Your task to perform on an android device: toggle priority inbox in the gmail app Image 0: 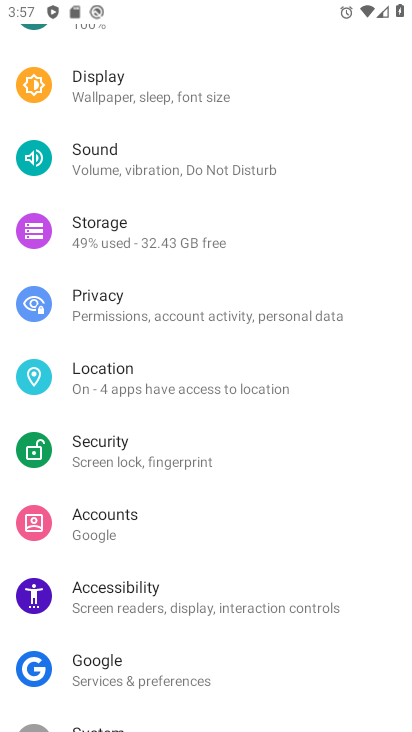
Step 0: press home button
Your task to perform on an android device: toggle priority inbox in the gmail app Image 1: 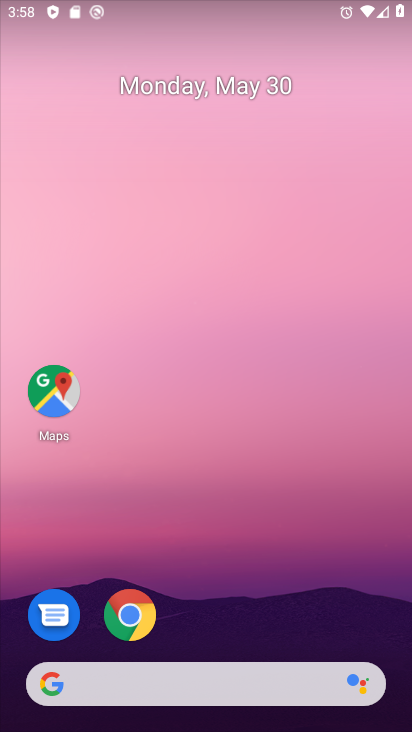
Step 1: drag from (267, 565) to (271, 34)
Your task to perform on an android device: toggle priority inbox in the gmail app Image 2: 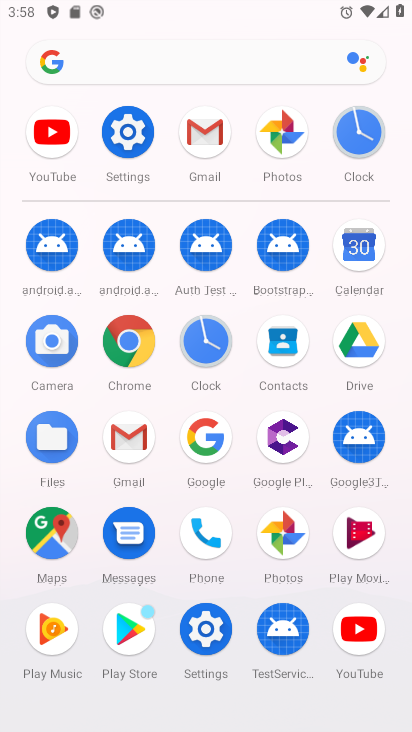
Step 2: click (211, 128)
Your task to perform on an android device: toggle priority inbox in the gmail app Image 3: 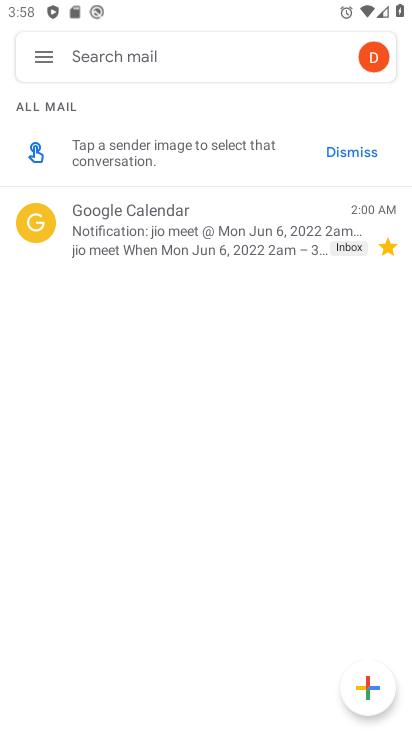
Step 3: click (36, 49)
Your task to perform on an android device: toggle priority inbox in the gmail app Image 4: 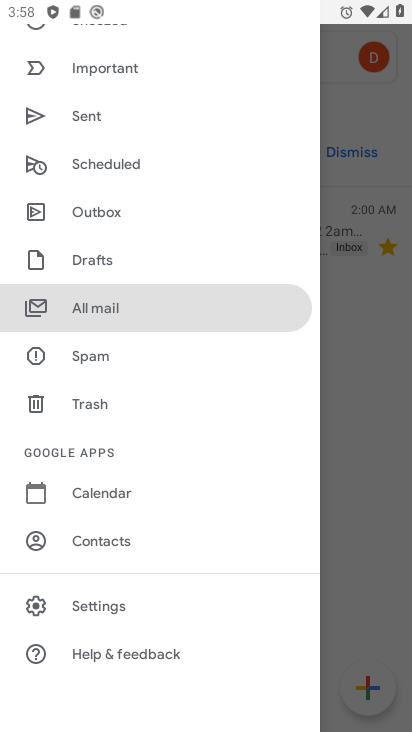
Step 4: drag from (141, 307) to (143, 595)
Your task to perform on an android device: toggle priority inbox in the gmail app Image 5: 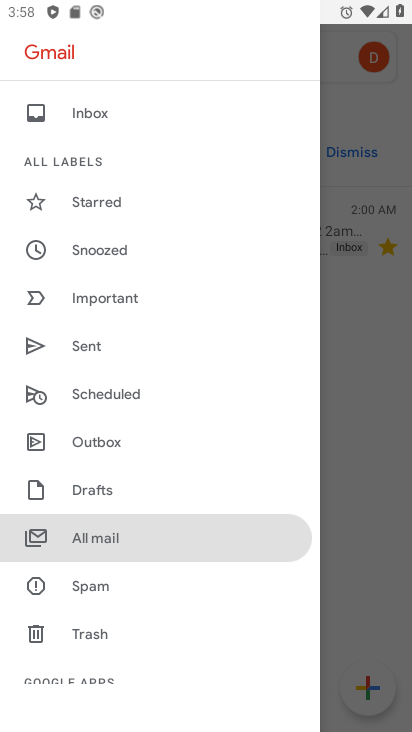
Step 5: drag from (138, 598) to (164, 340)
Your task to perform on an android device: toggle priority inbox in the gmail app Image 6: 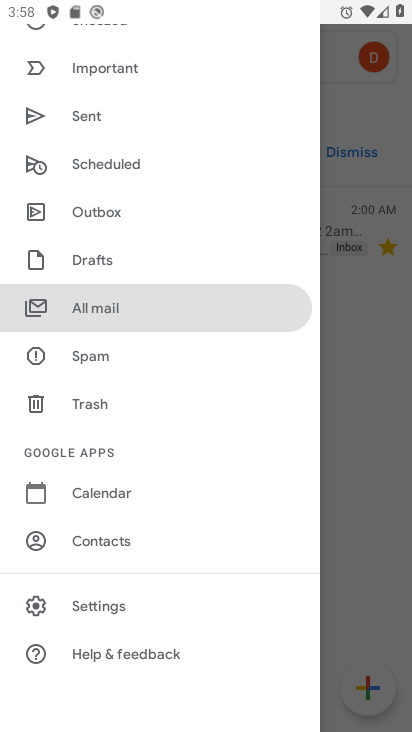
Step 6: click (121, 595)
Your task to perform on an android device: toggle priority inbox in the gmail app Image 7: 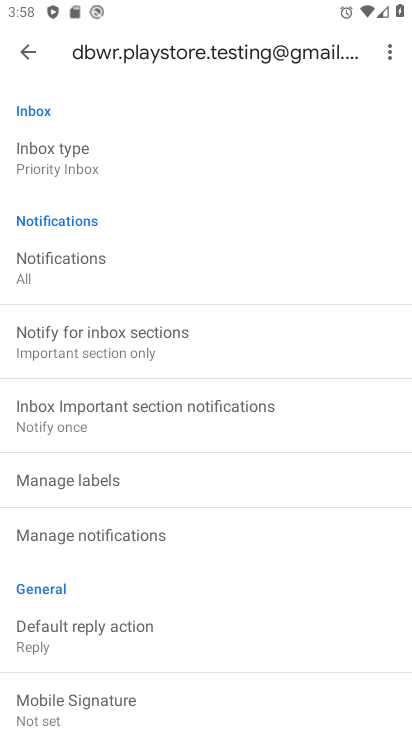
Step 7: click (87, 158)
Your task to perform on an android device: toggle priority inbox in the gmail app Image 8: 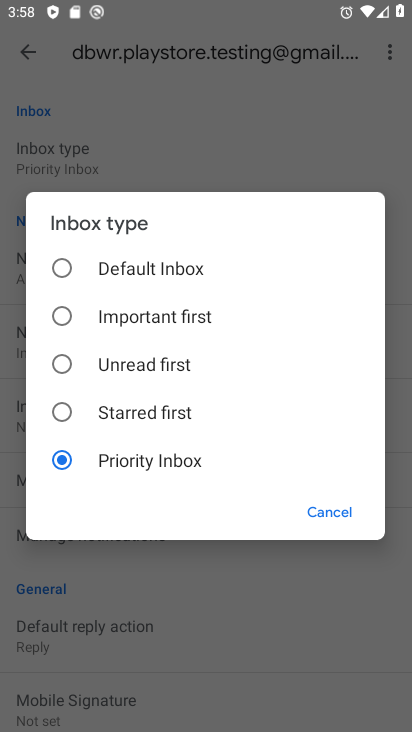
Step 8: click (62, 257)
Your task to perform on an android device: toggle priority inbox in the gmail app Image 9: 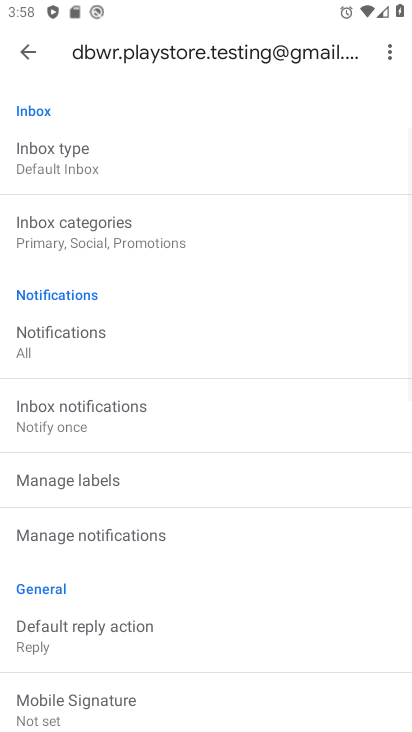
Step 9: task complete